Your task to perform on an android device: Open notification settings Image 0: 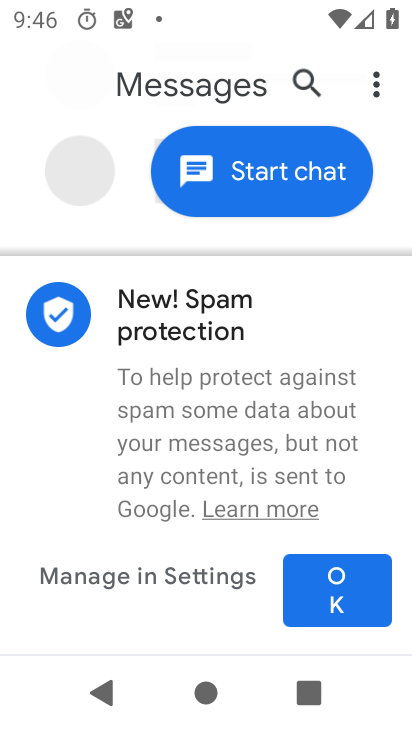
Step 0: press home button
Your task to perform on an android device: Open notification settings Image 1: 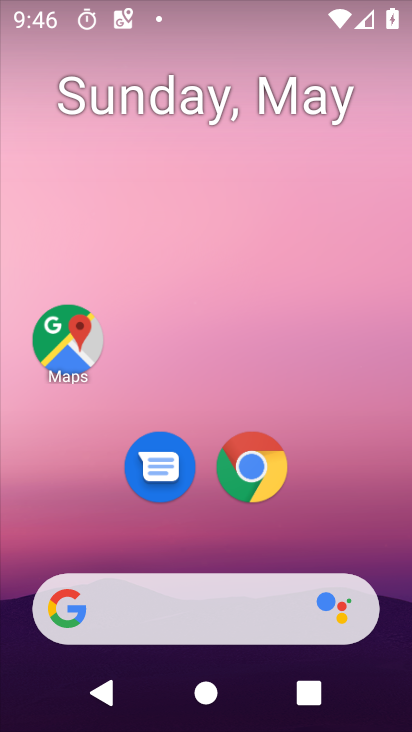
Step 1: drag from (186, 537) to (204, 206)
Your task to perform on an android device: Open notification settings Image 2: 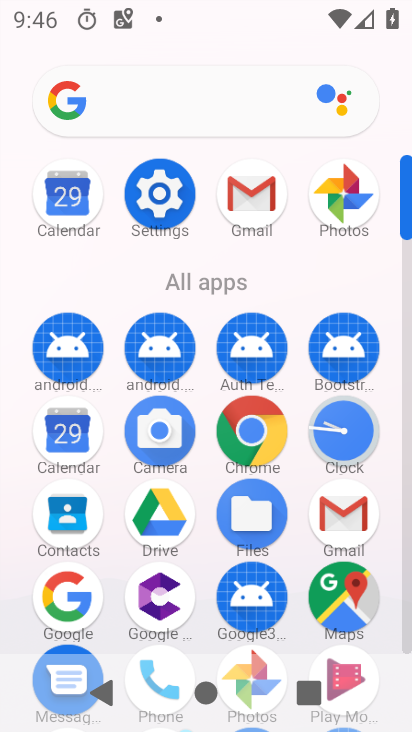
Step 2: click (149, 190)
Your task to perform on an android device: Open notification settings Image 3: 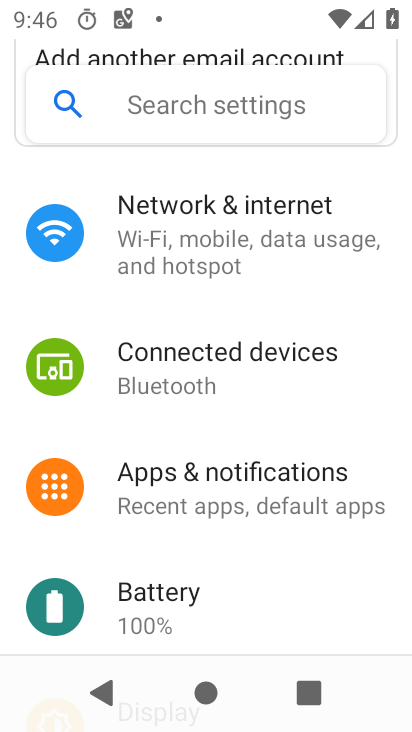
Step 3: click (183, 493)
Your task to perform on an android device: Open notification settings Image 4: 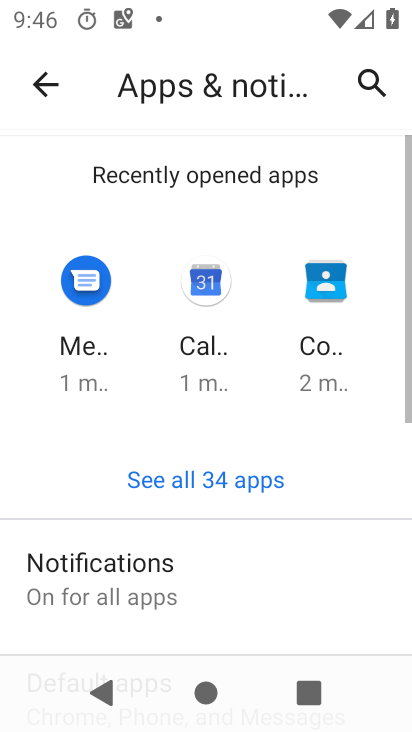
Step 4: click (230, 573)
Your task to perform on an android device: Open notification settings Image 5: 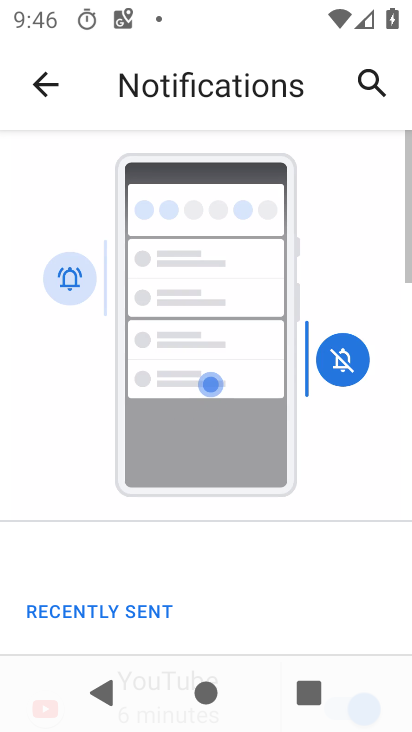
Step 5: task complete